Your task to perform on an android device: Go to internet settings Image 0: 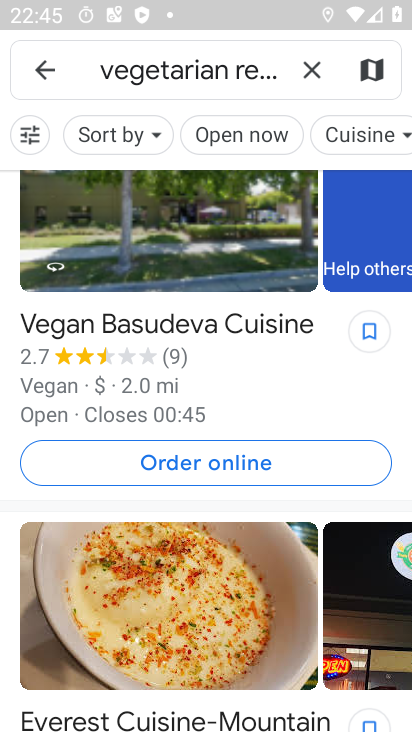
Step 0: press home button
Your task to perform on an android device: Go to internet settings Image 1: 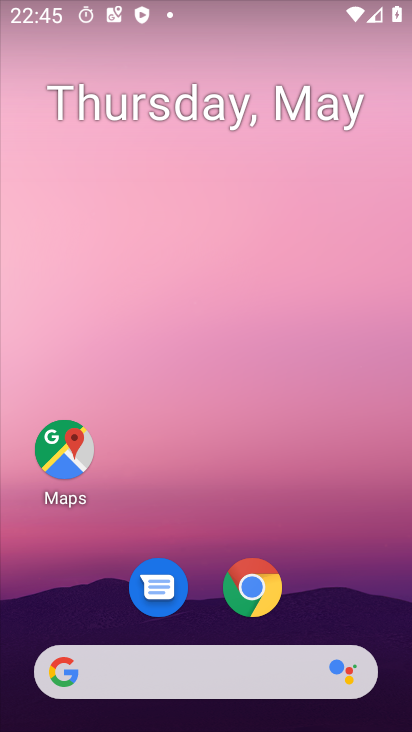
Step 1: drag from (357, 636) to (326, 0)
Your task to perform on an android device: Go to internet settings Image 2: 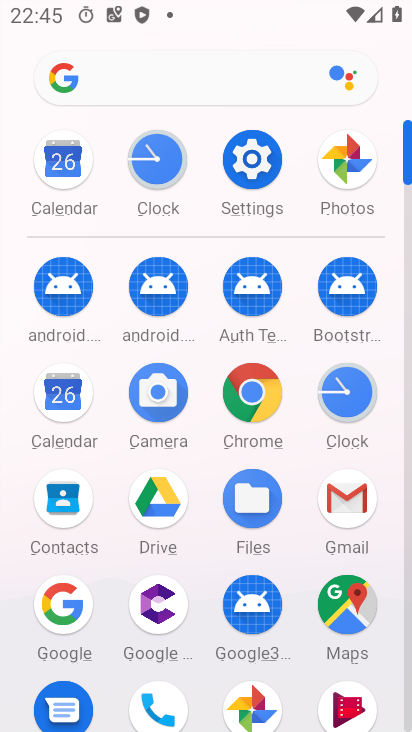
Step 2: click (254, 165)
Your task to perform on an android device: Go to internet settings Image 3: 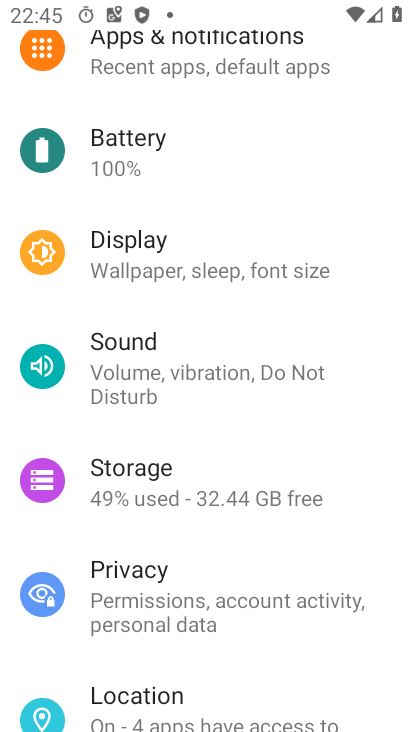
Step 3: drag from (254, 165) to (281, 521)
Your task to perform on an android device: Go to internet settings Image 4: 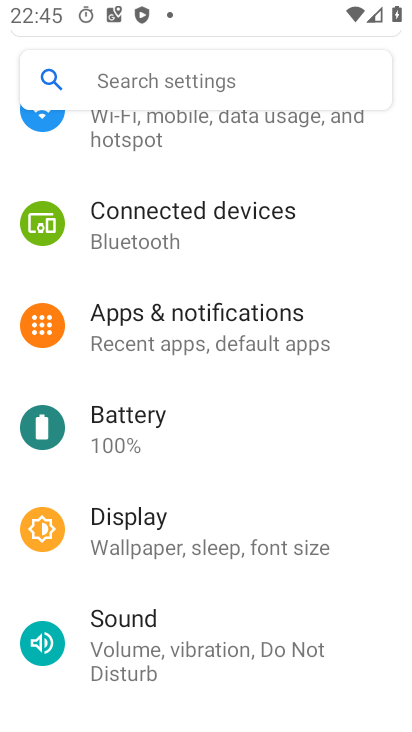
Step 4: drag from (220, 223) to (237, 571)
Your task to perform on an android device: Go to internet settings Image 5: 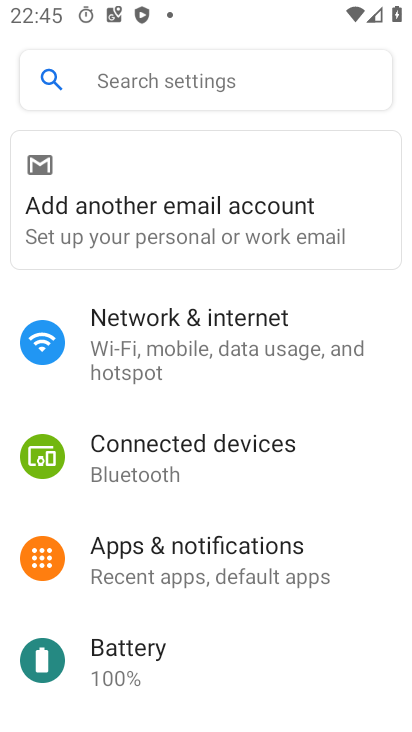
Step 5: click (147, 330)
Your task to perform on an android device: Go to internet settings Image 6: 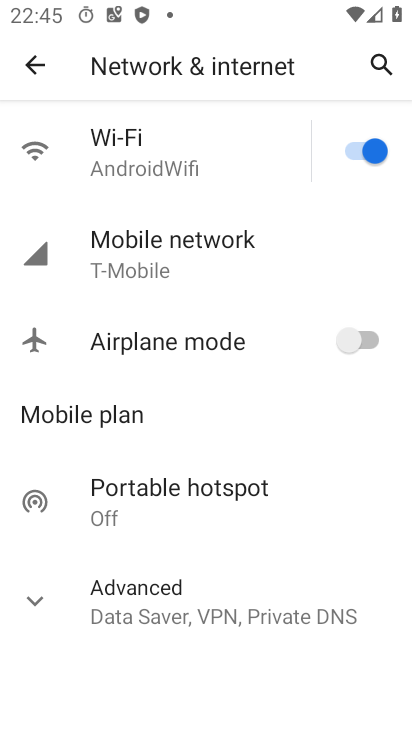
Step 6: task complete